Your task to perform on an android device: Is it going to rain today? Image 0: 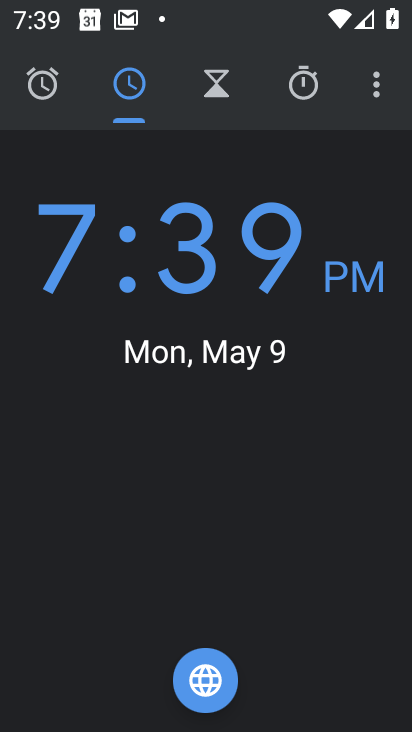
Step 0: press back button
Your task to perform on an android device: Is it going to rain today? Image 1: 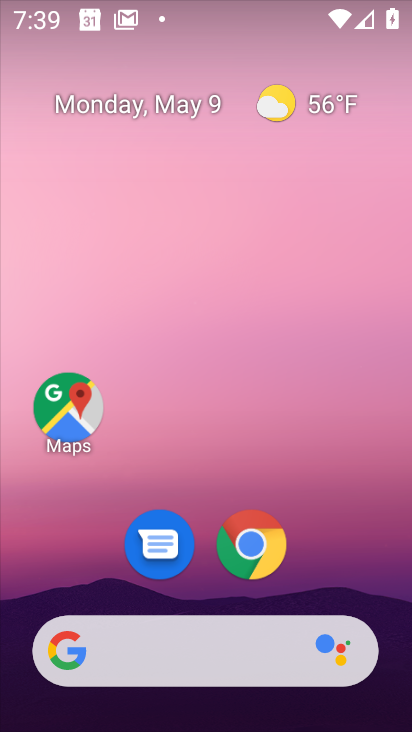
Step 1: drag from (318, 557) to (249, 20)
Your task to perform on an android device: Is it going to rain today? Image 2: 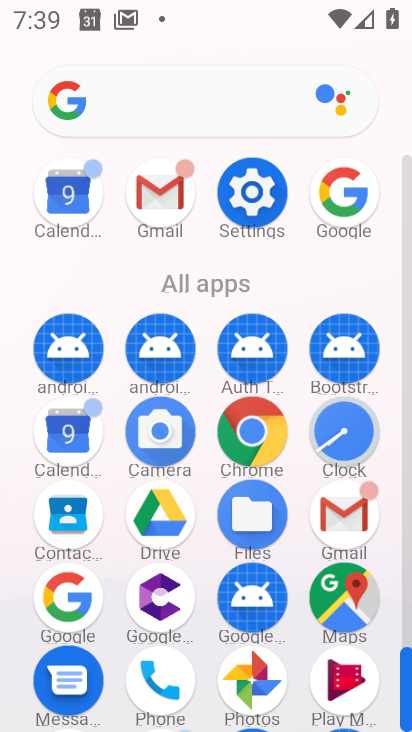
Step 2: click (60, 595)
Your task to perform on an android device: Is it going to rain today? Image 3: 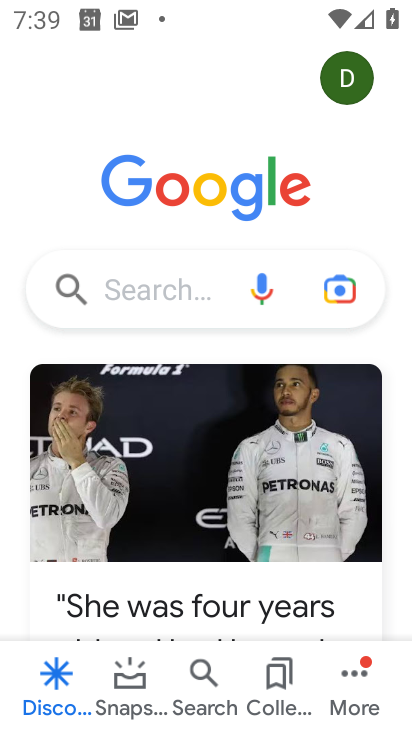
Step 3: click (173, 292)
Your task to perform on an android device: Is it going to rain today? Image 4: 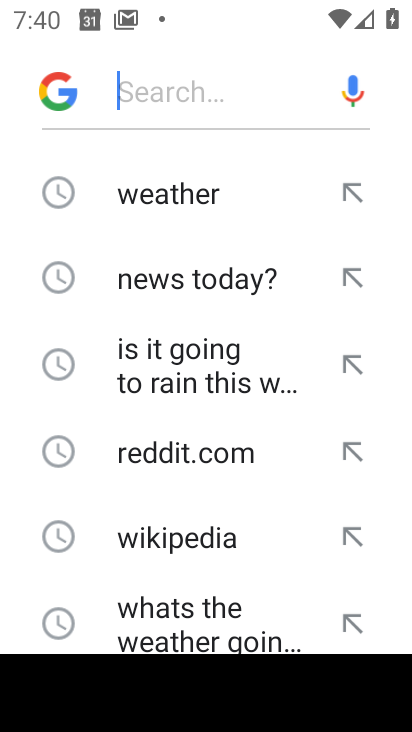
Step 4: type "rain today"
Your task to perform on an android device: Is it going to rain today? Image 5: 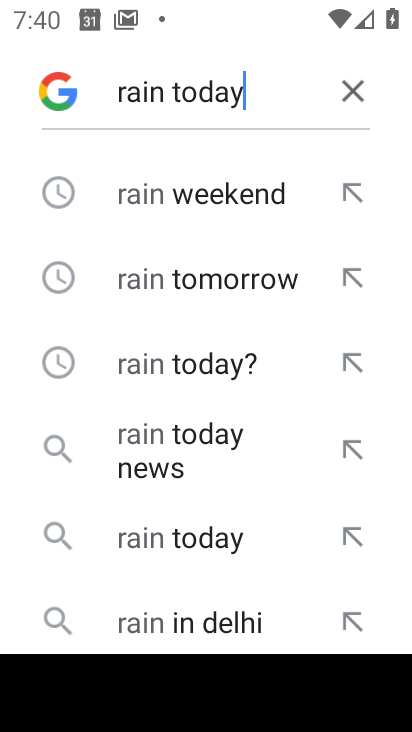
Step 5: type ""
Your task to perform on an android device: Is it going to rain today? Image 6: 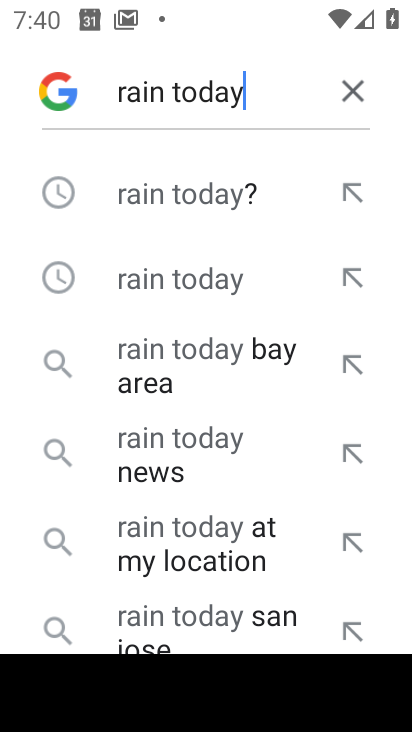
Step 6: click (138, 196)
Your task to perform on an android device: Is it going to rain today? Image 7: 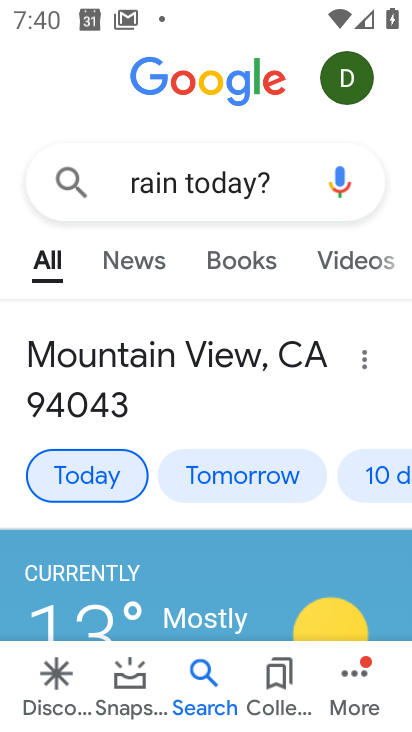
Step 7: task complete